Your task to perform on an android device: Show me recent news Image 0: 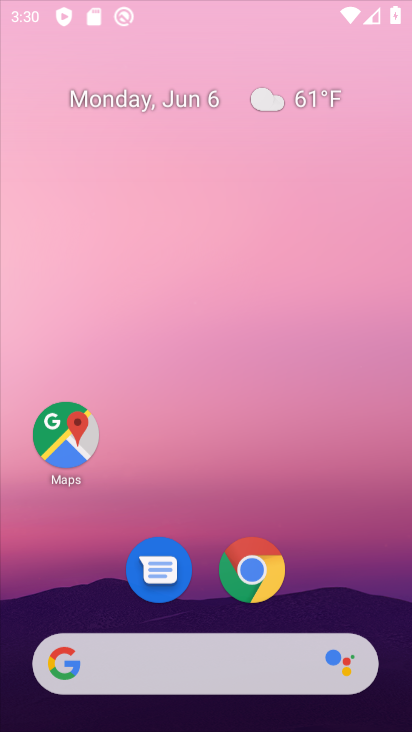
Step 0: click (89, 440)
Your task to perform on an android device: Show me recent news Image 1: 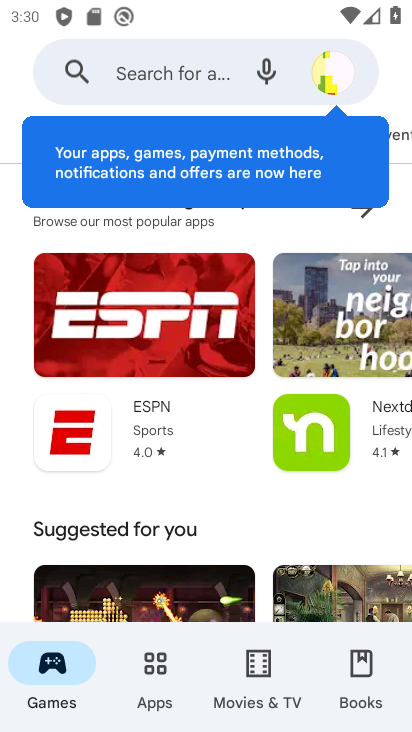
Step 1: click (89, 468)
Your task to perform on an android device: Show me recent news Image 2: 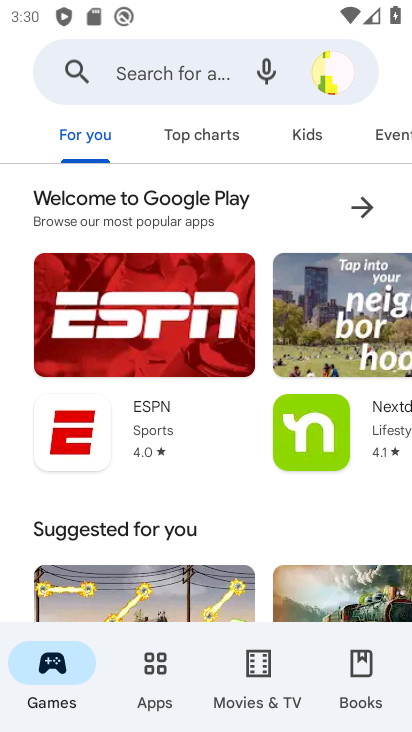
Step 2: press home button
Your task to perform on an android device: Show me recent news Image 3: 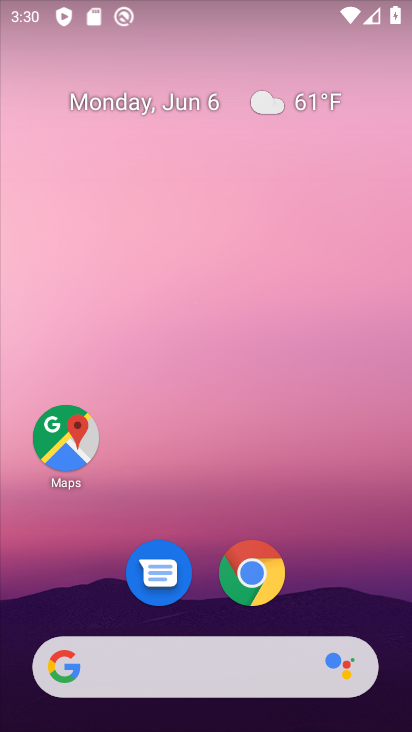
Step 3: drag from (154, 656) to (149, 421)
Your task to perform on an android device: Show me recent news Image 4: 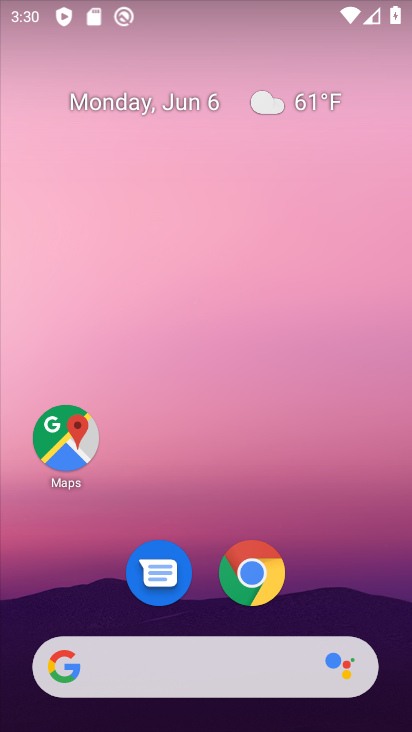
Step 4: drag from (145, 659) to (95, 153)
Your task to perform on an android device: Show me recent news Image 5: 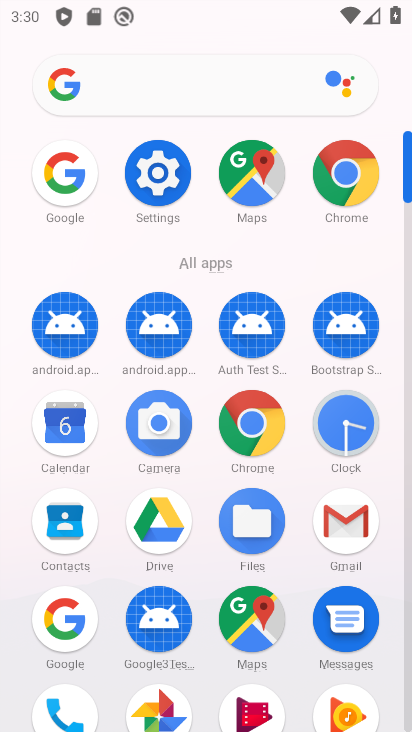
Step 5: click (68, 173)
Your task to perform on an android device: Show me recent news Image 6: 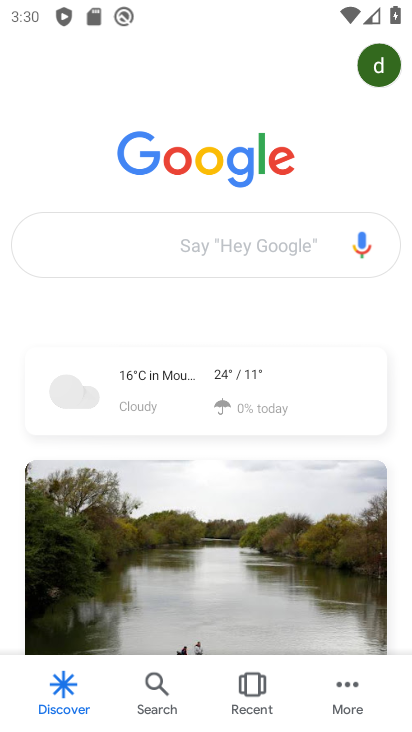
Step 6: click (129, 244)
Your task to perform on an android device: Show me recent news Image 7: 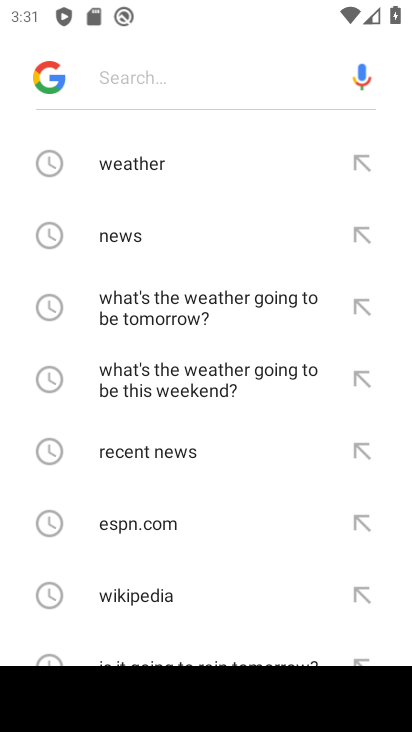
Step 7: click (161, 447)
Your task to perform on an android device: Show me recent news Image 8: 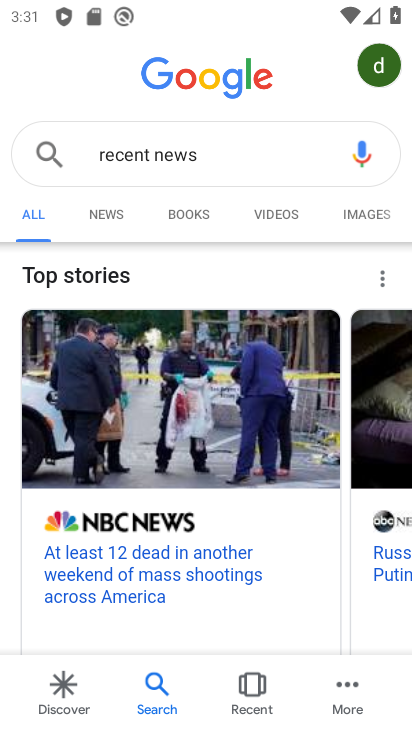
Step 8: task complete